Your task to perform on an android device: search for starred emails in the gmail app Image 0: 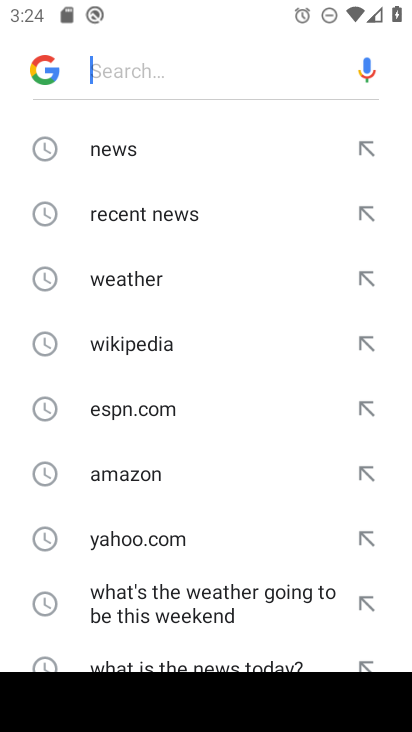
Step 0: press back button
Your task to perform on an android device: search for starred emails in the gmail app Image 1: 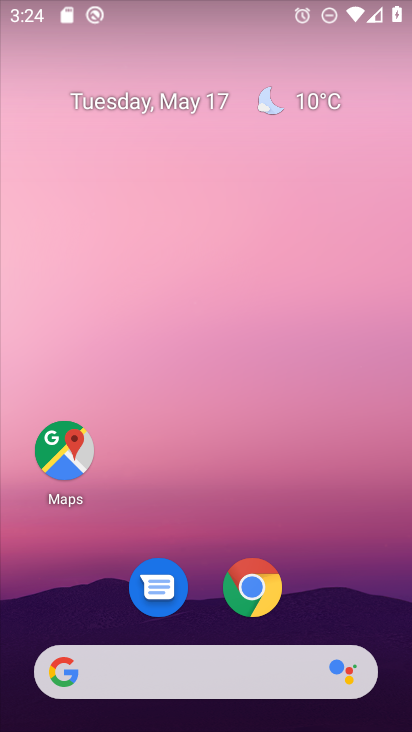
Step 1: drag from (350, 566) to (240, 32)
Your task to perform on an android device: search for starred emails in the gmail app Image 2: 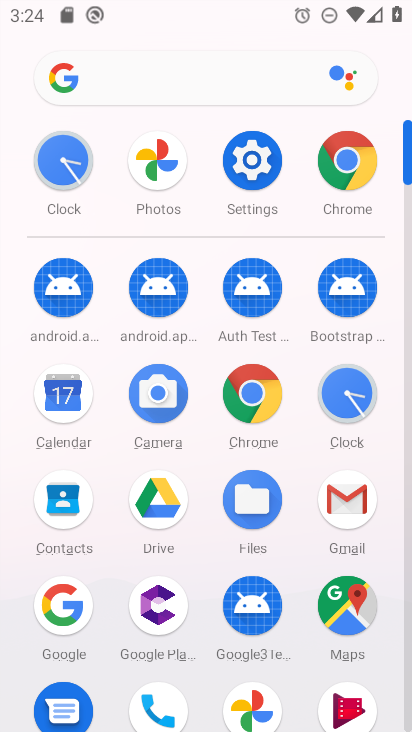
Step 2: drag from (26, 607) to (11, 263)
Your task to perform on an android device: search for starred emails in the gmail app Image 3: 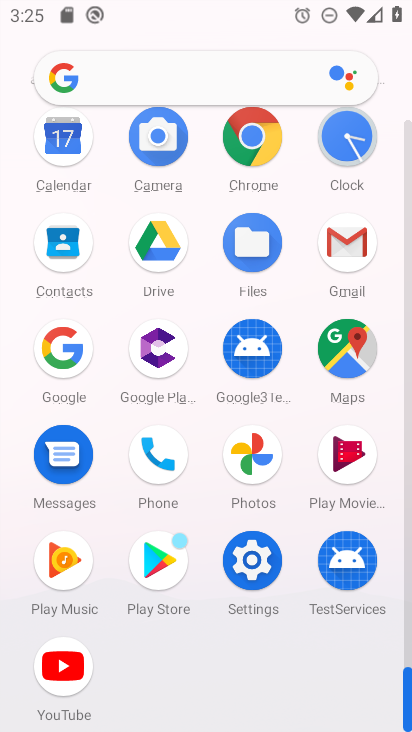
Step 3: click (351, 237)
Your task to perform on an android device: search for starred emails in the gmail app Image 4: 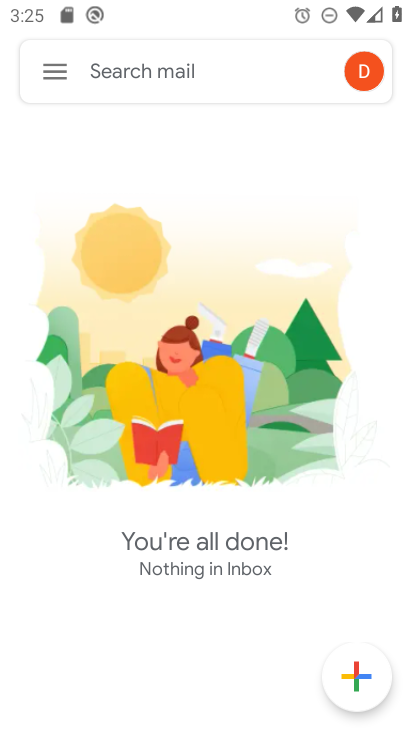
Step 4: click (50, 73)
Your task to perform on an android device: search for starred emails in the gmail app Image 5: 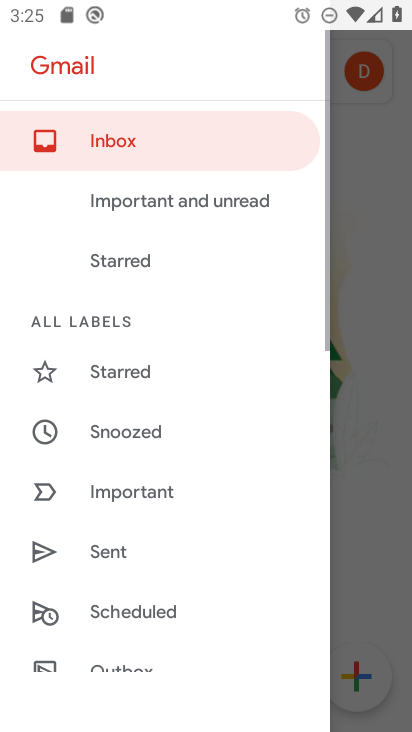
Step 5: click (151, 255)
Your task to perform on an android device: search for starred emails in the gmail app Image 6: 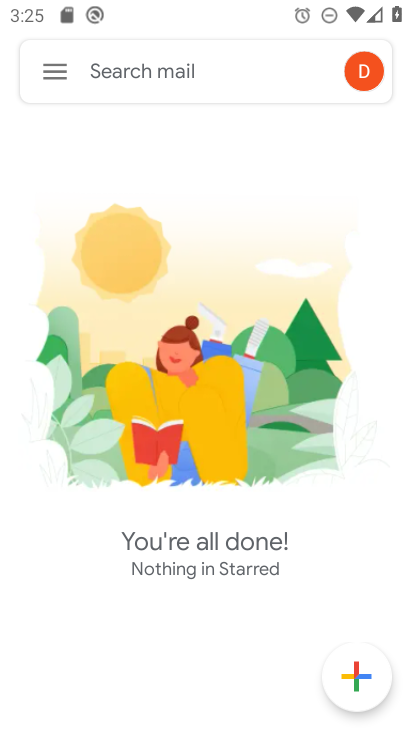
Step 6: click (64, 62)
Your task to perform on an android device: search for starred emails in the gmail app Image 7: 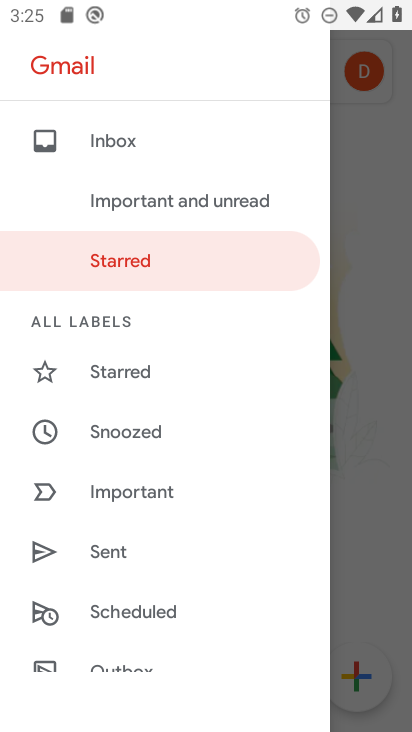
Step 7: click (147, 365)
Your task to perform on an android device: search for starred emails in the gmail app Image 8: 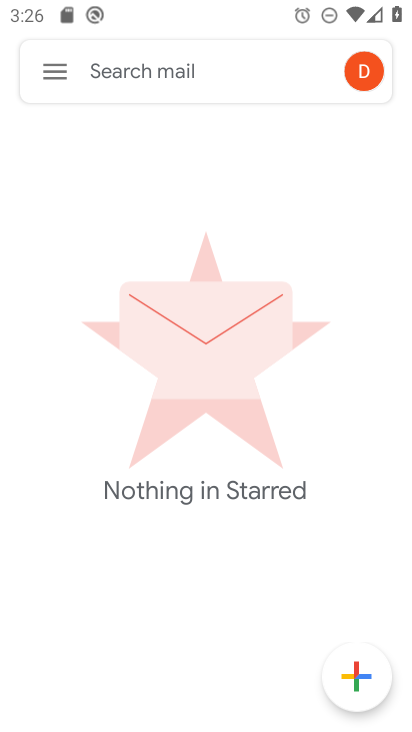
Step 8: task complete